Your task to perform on an android device: Open the calendar and show me this week's events Image 0: 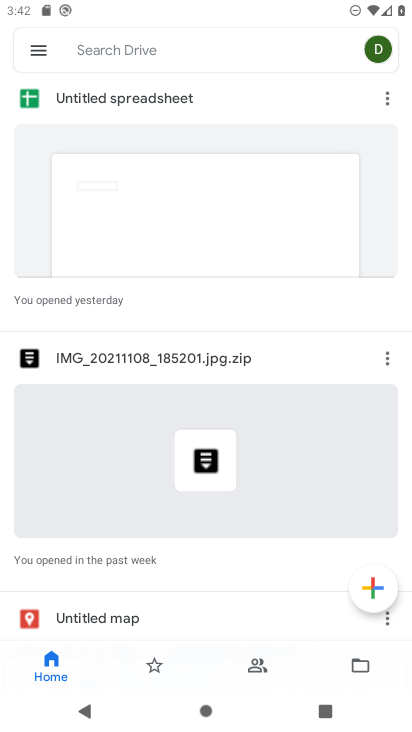
Step 0: press home button
Your task to perform on an android device: Open the calendar and show me this week's events Image 1: 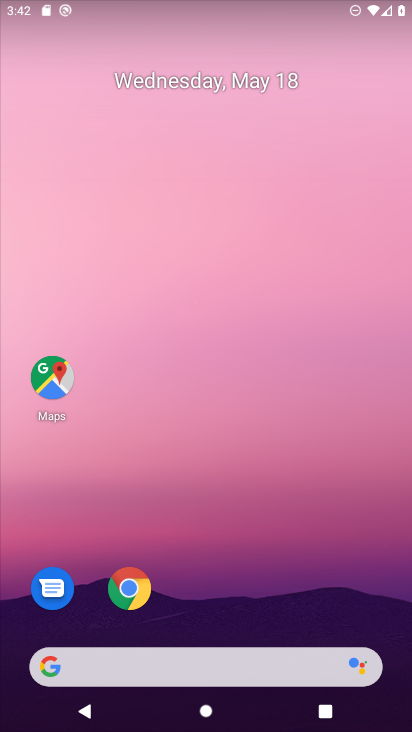
Step 1: drag from (284, 562) to (307, 87)
Your task to perform on an android device: Open the calendar and show me this week's events Image 2: 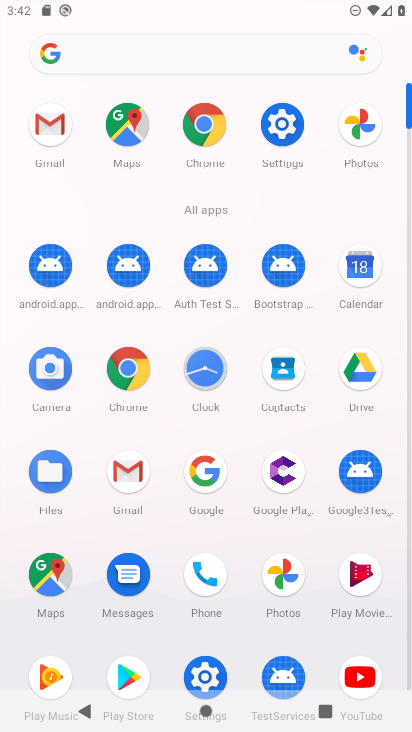
Step 2: click (358, 270)
Your task to perform on an android device: Open the calendar and show me this week's events Image 3: 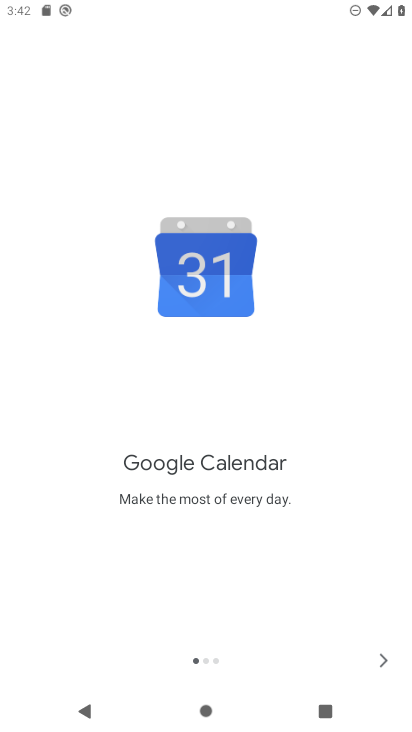
Step 3: click (379, 654)
Your task to perform on an android device: Open the calendar and show me this week's events Image 4: 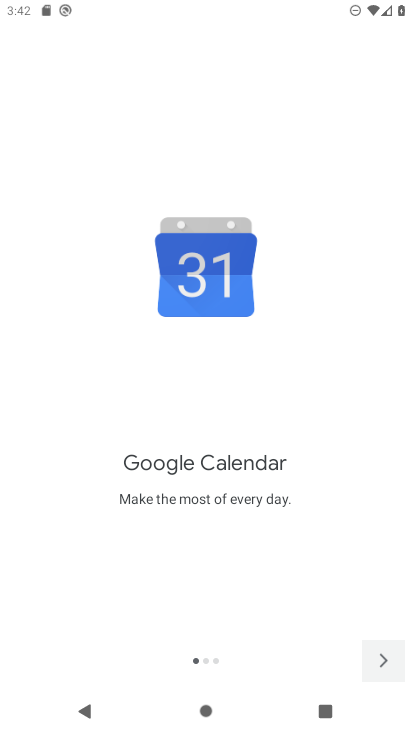
Step 4: click (379, 654)
Your task to perform on an android device: Open the calendar and show me this week's events Image 5: 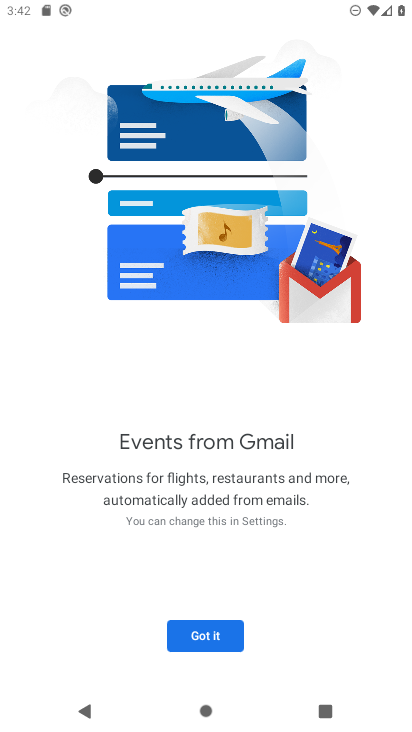
Step 5: click (379, 654)
Your task to perform on an android device: Open the calendar and show me this week's events Image 6: 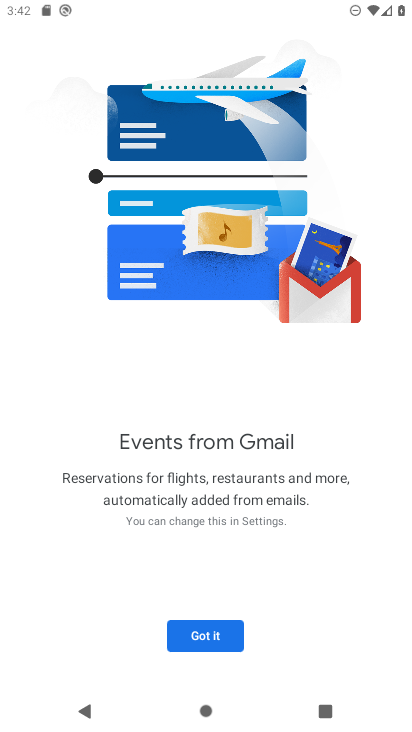
Step 6: click (214, 631)
Your task to perform on an android device: Open the calendar and show me this week's events Image 7: 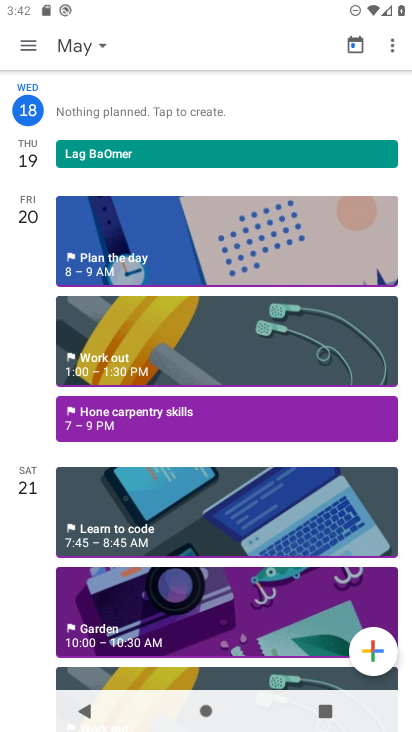
Step 7: click (100, 37)
Your task to perform on an android device: Open the calendar and show me this week's events Image 8: 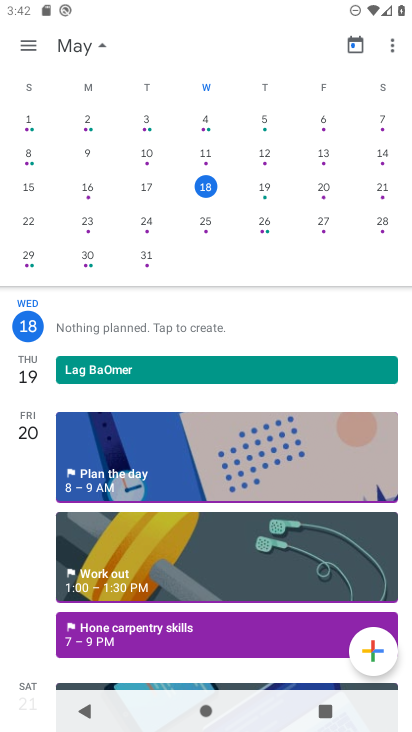
Step 8: click (40, 41)
Your task to perform on an android device: Open the calendar and show me this week's events Image 9: 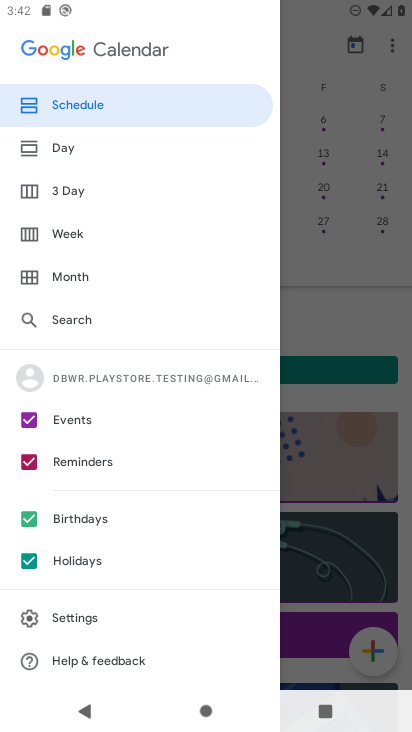
Step 9: click (115, 258)
Your task to perform on an android device: Open the calendar and show me this week's events Image 10: 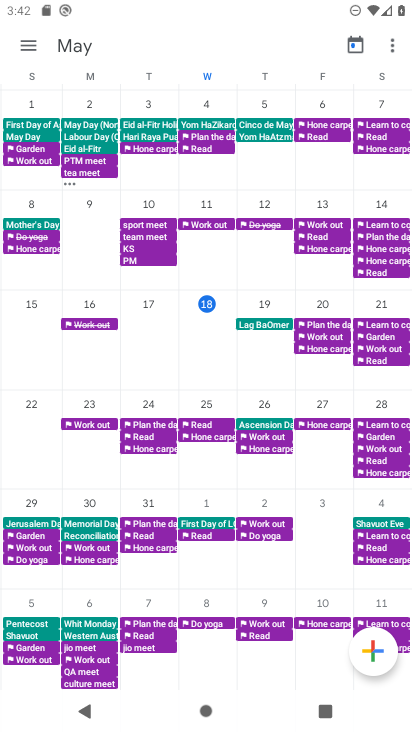
Step 10: task complete